Your task to perform on an android device: Open location settings Image 0: 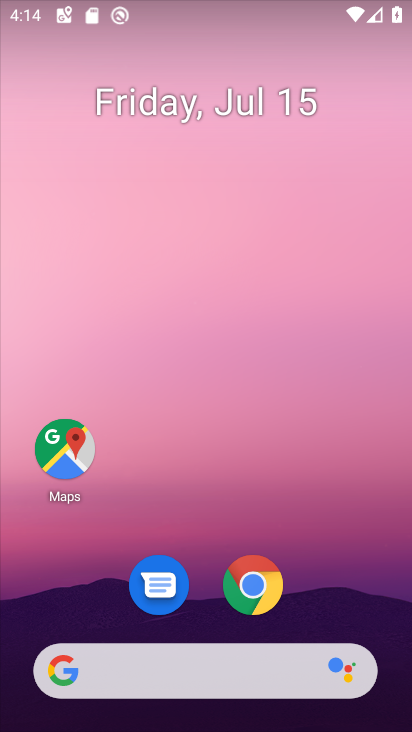
Step 0: drag from (221, 528) to (260, 18)
Your task to perform on an android device: Open location settings Image 1: 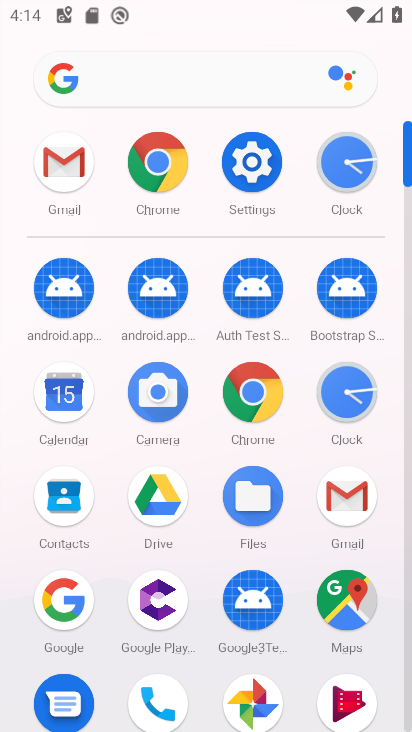
Step 1: click (268, 169)
Your task to perform on an android device: Open location settings Image 2: 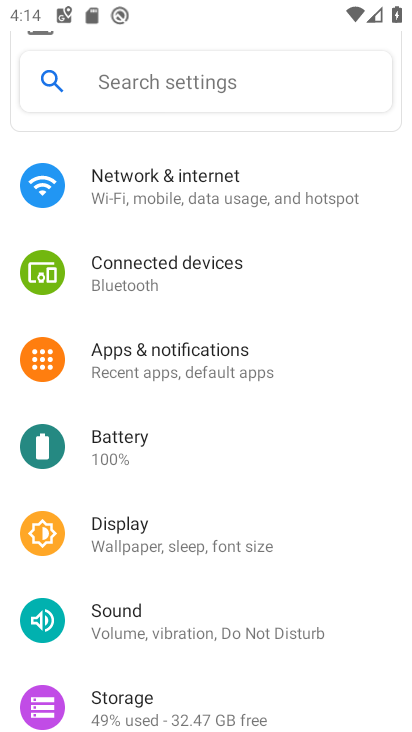
Step 2: drag from (218, 586) to (241, 188)
Your task to perform on an android device: Open location settings Image 3: 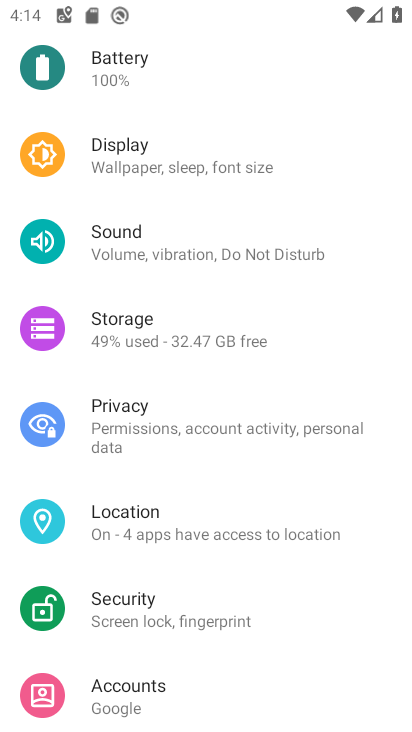
Step 3: click (226, 522)
Your task to perform on an android device: Open location settings Image 4: 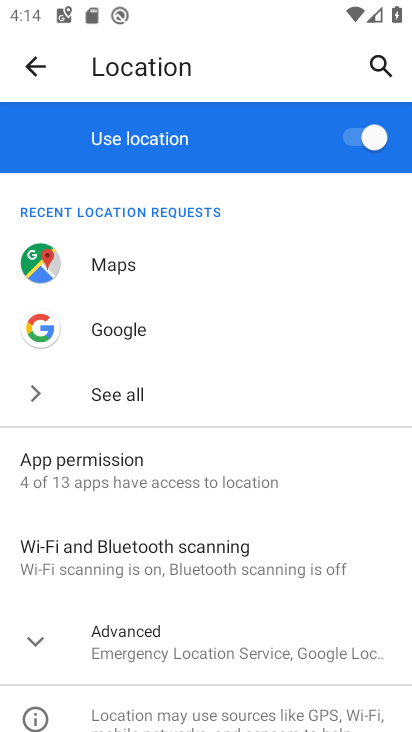
Step 4: task complete